Your task to perform on an android device: turn notification dots off Image 0: 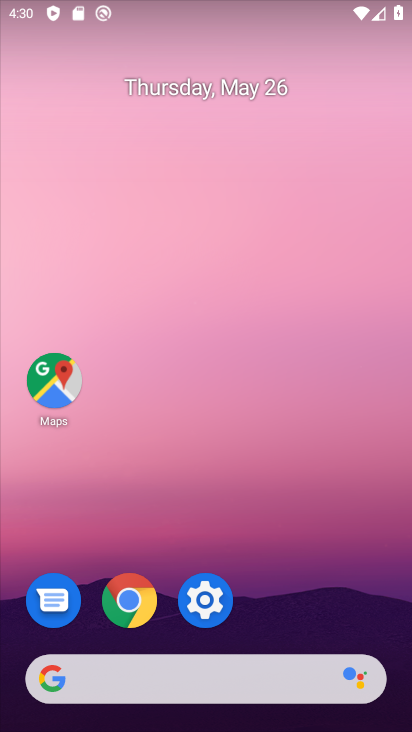
Step 0: drag from (296, 578) to (256, 138)
Your task to perform on an android device: turn notification dots off Image 1: 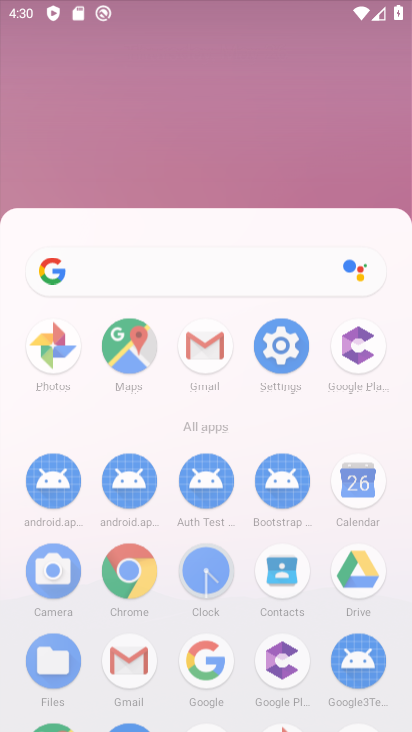
Step 1: drag from (295, 528) to (237, 155)
Your task to perform on an android device: turn notification dots off Image 2: 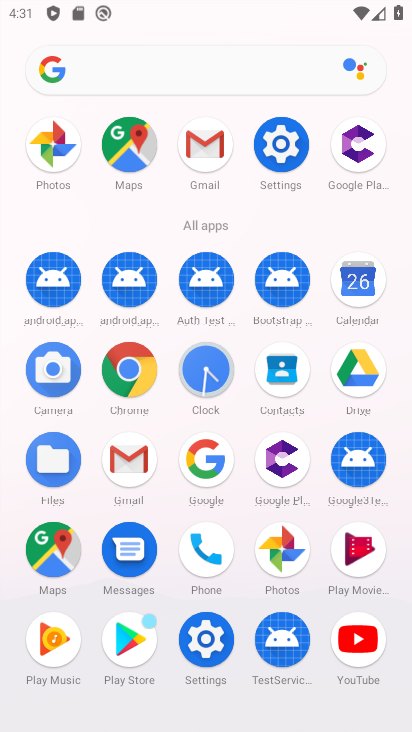
Step 2: click (278, 137)
Your task to perform on an android device: turn notification dots off Image 3: 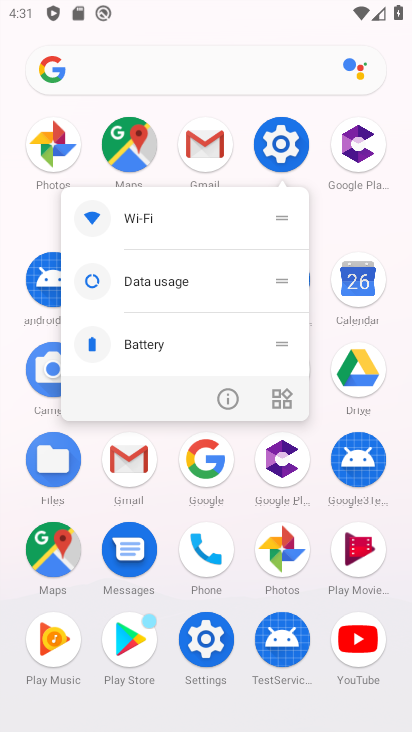
Step 3: click (275, 147)
Your task to perform on an android device: turn notification dots off Image 4: 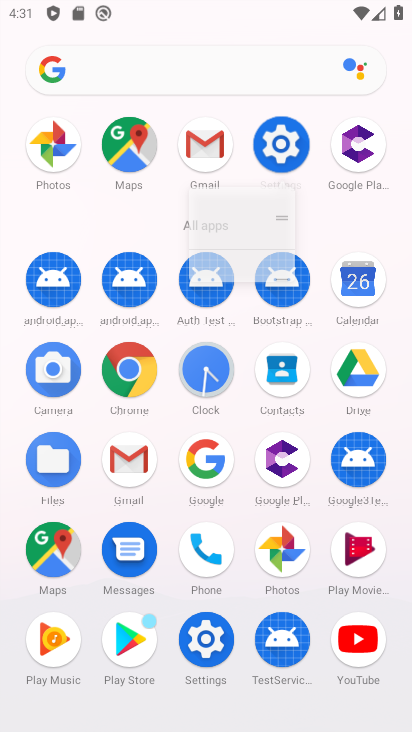
Step 4: click (276, 147)
Your task to perform on an android device: turn notification dots off Image 5: 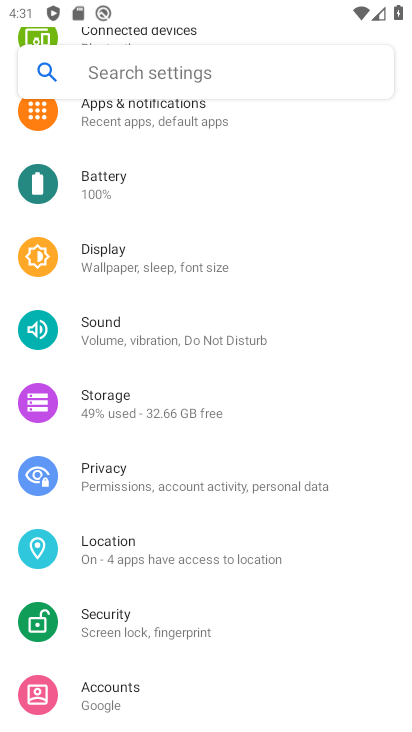
Step 5: drag from (117, 194) to (174, 571)
Your task to perform on an android device: turn notification dots off Image 6: 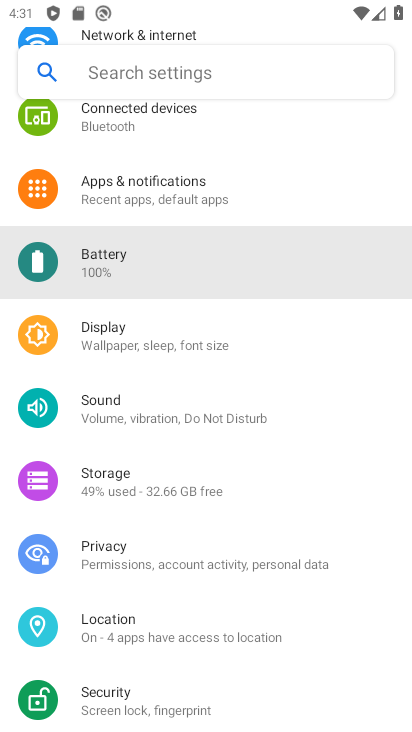
Step 6: drag from (166, 327) to (227, 728)
Your task to perform on an android device: turn notification dots off Image 7: 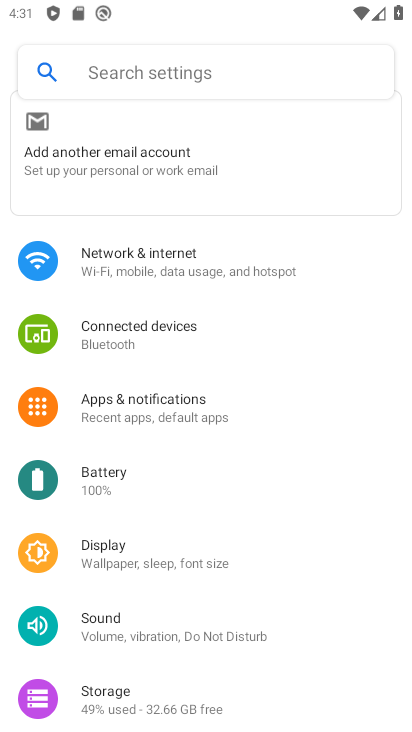
Step 7: click (148, 408)
Your task to perform on an android device: turn notification dots off Image 8: 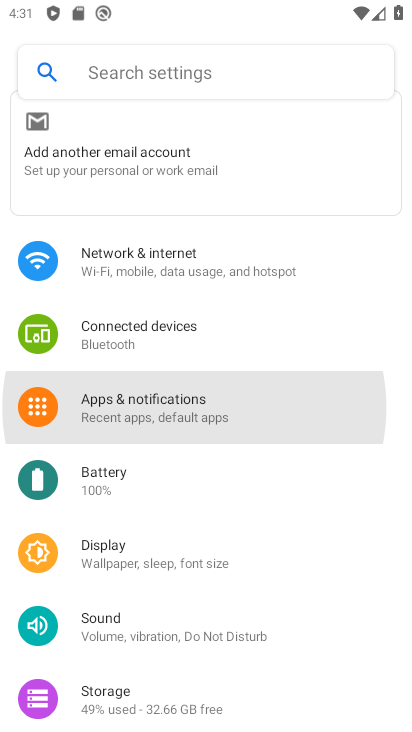
Step 8: click (149, 407)
Your task to perform on an android device: turn notification dots off Image 9: 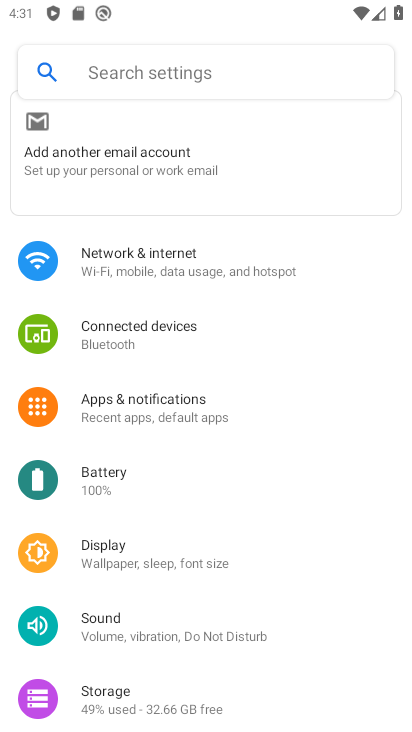
Step 9: click (149, 407)
Your task to perform on an android device: turn notification dots off Image 10: 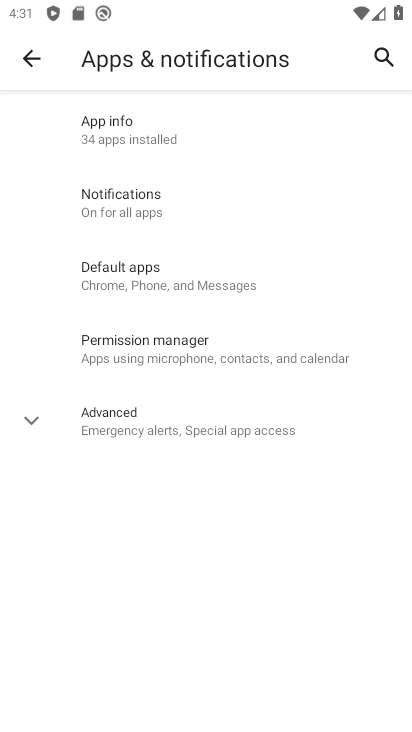
Step 10: click (115, 193)
Your task to perform on an android device: turn notification dots off Image 11: 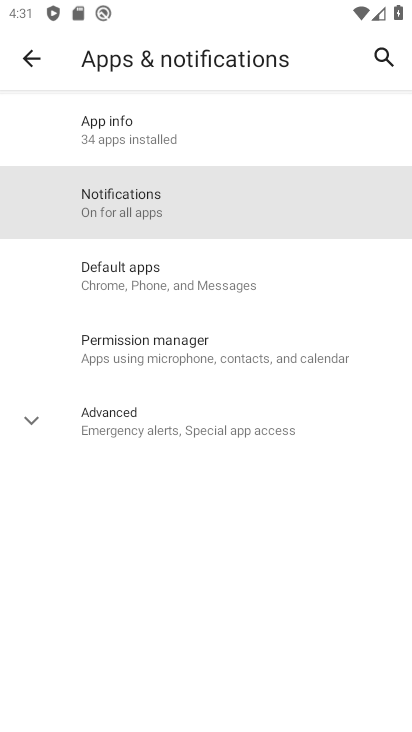
Step 11: click (120, 198)
Your task to perform on an android device: turn notification dots off Image 12: 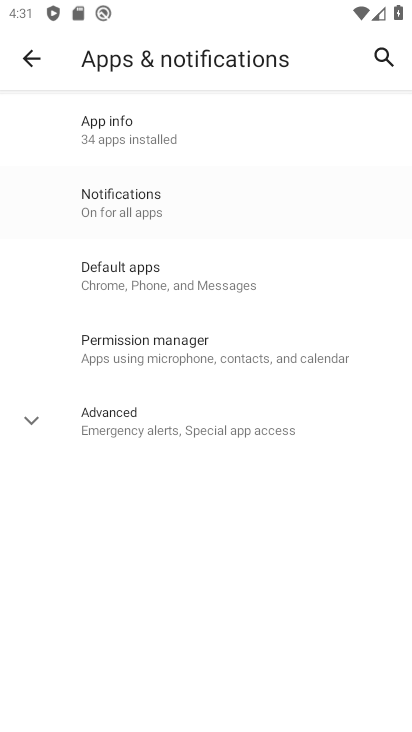
Step 12: click (121, 197)
Your task to perform on an android device: turn notification dots off Image 13: 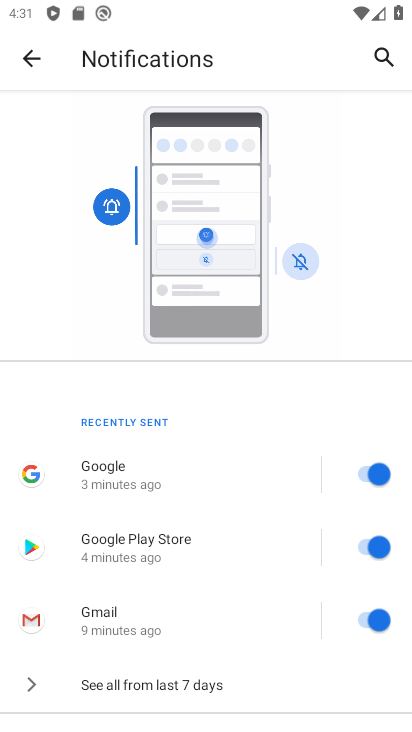
Step 13: task complete